Your task to perform on an android device: Open Amazon Image 0: 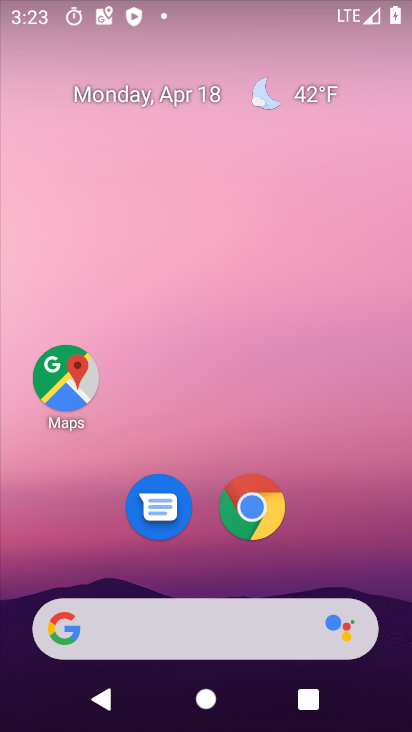
Step 0: click (273, 506)
Your task to perform on an android device: Open Amazon Image 1: 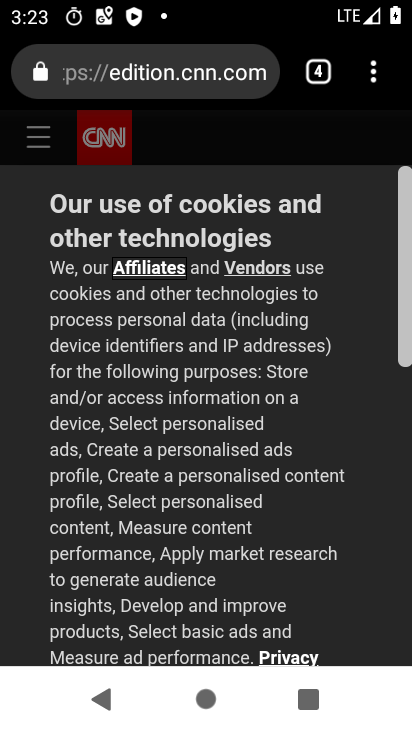
Step 1: click (313, 61)
Your task to perform on an android device: Open Amazon Image 2: 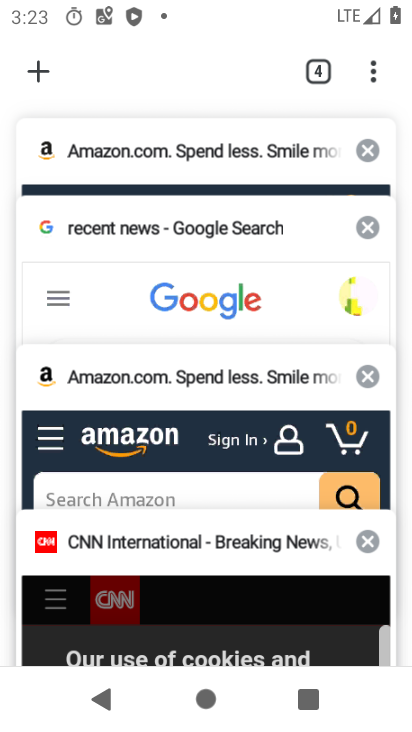
Step 2: click (29, 72)
Your task to perform on an android device: Open Amazon Image 3: 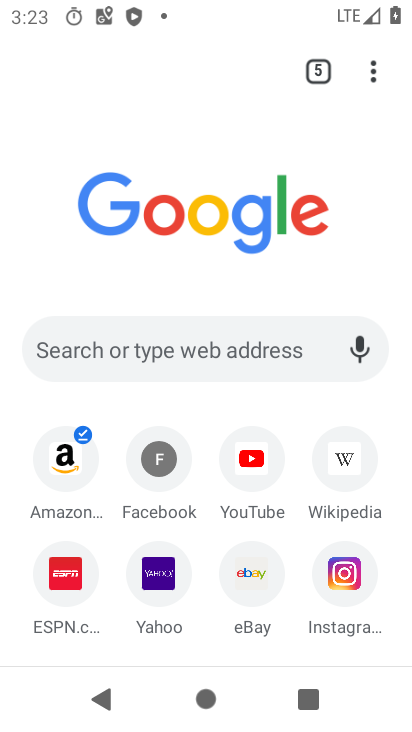
Step 3: click (217, 328)
Your task to perform on an android device: Open Amazon Image 4: 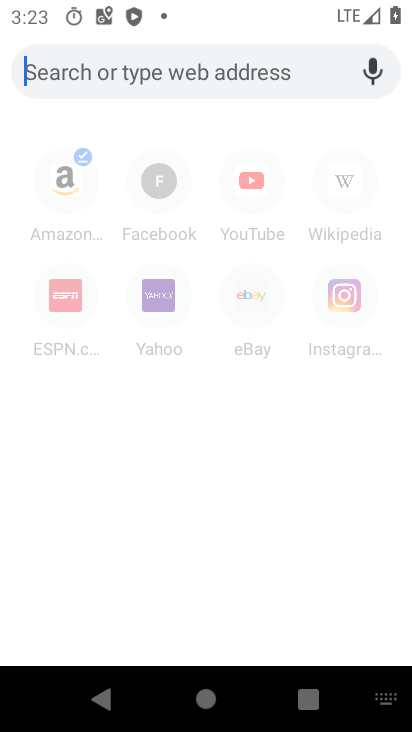
Step 4: type "amazon"
Your task to perform on an android device: Open Amazon Image 5: 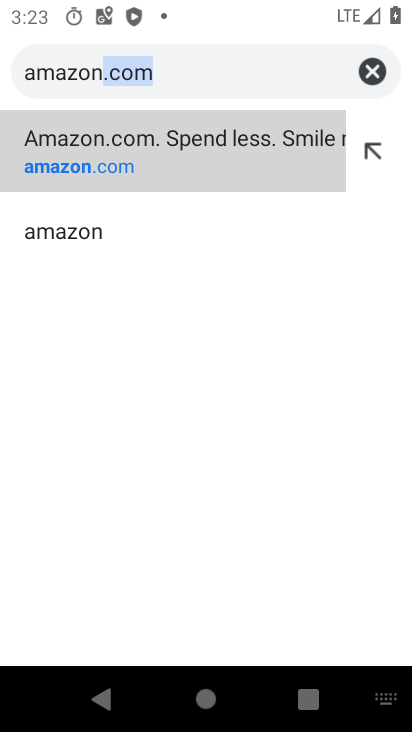
Step 5: click (48, 153)
Your task to perform on an android device: Open Amazon Image 6: 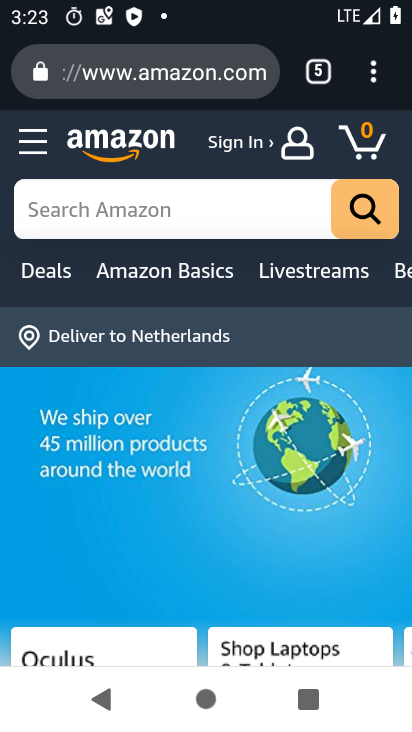
Step 6: task complete